Your task to perform on an android device: all mails in gmail Image 0: 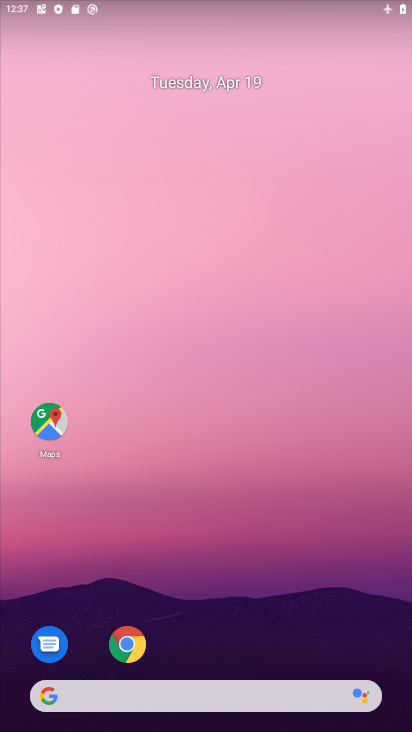
Step 0: drag from (257, 614) to (91, 0)
Your task to perform on an android device: all mails in gmail Image 1: 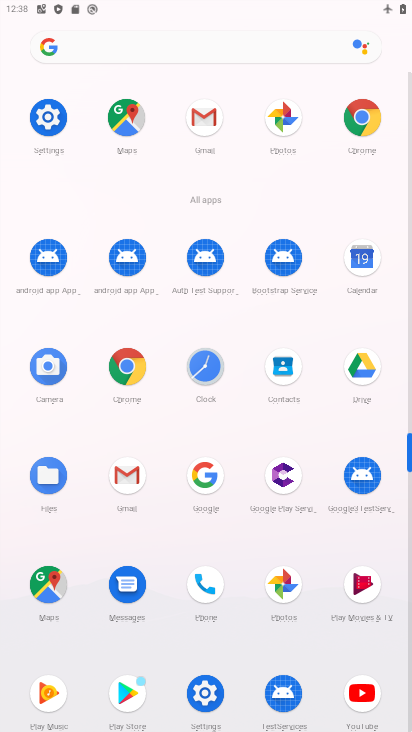
Step 1: click (126, 480)
Your task to perform on an android device: all mails in gmail Image 2: 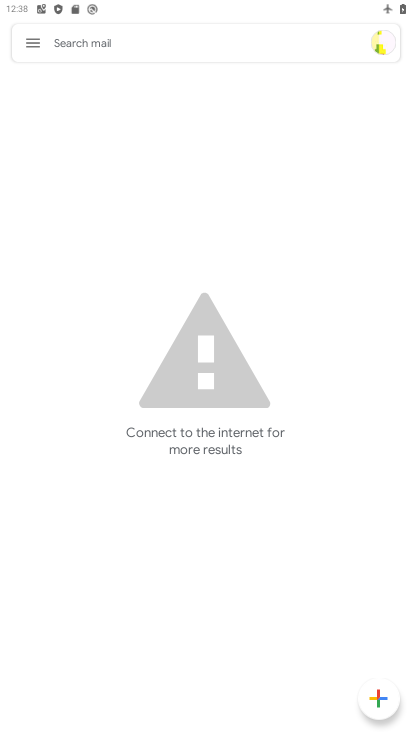
Step 2: click (26, 50)
Your task to perform on an android device: all mails in gmail Image 3: 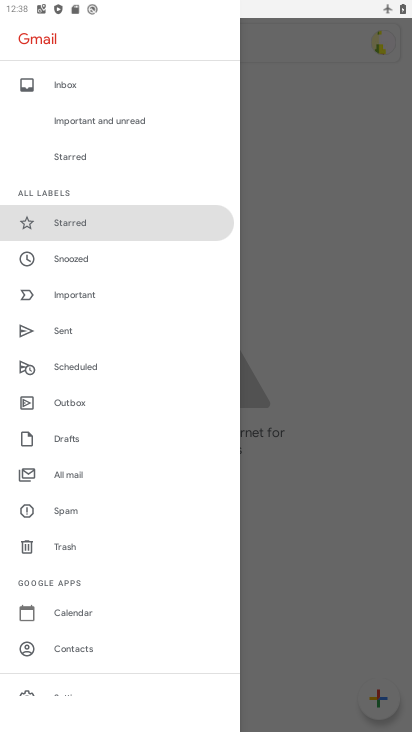
Step 3: click (77, 477)
Your task to perform on an android device: all mails in gmail Image 4: 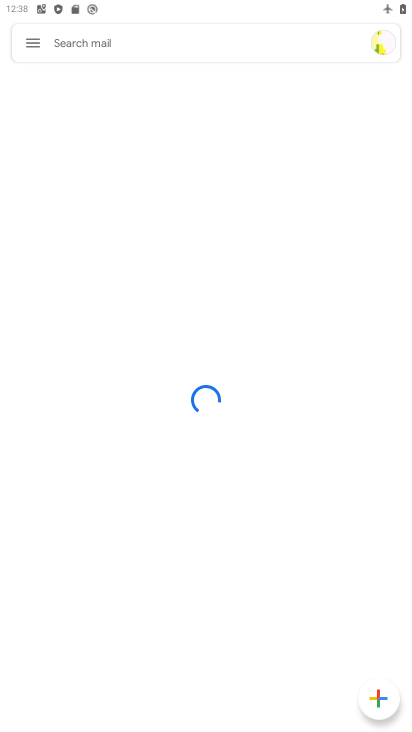
Step 4: task complete